Your task to perform on an android device: turn on airplane mode Image 0: 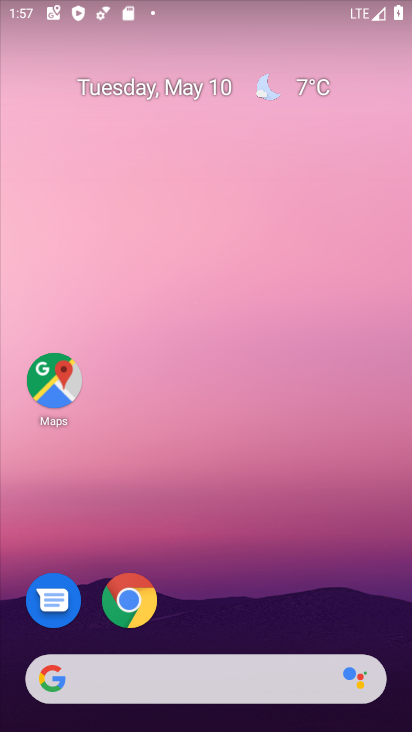
Step 0: drag from (181, 673) to (243, 216)
Your task to perform on an android device: turn on airplane mode Image 1: 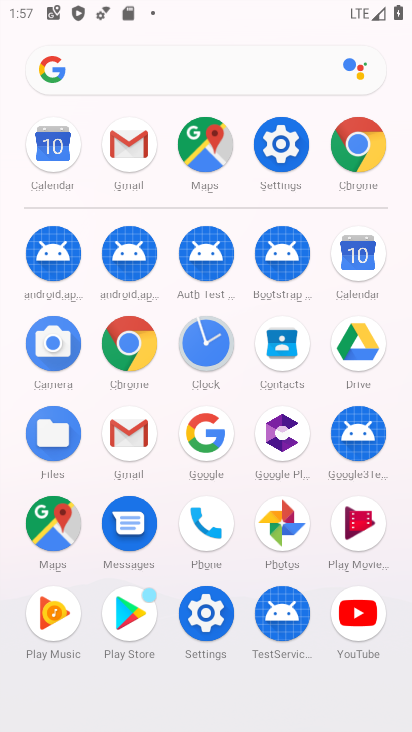
Step 1: click (283, 164)
Your task to perform on an android device: turn on airplane mode Image 2: 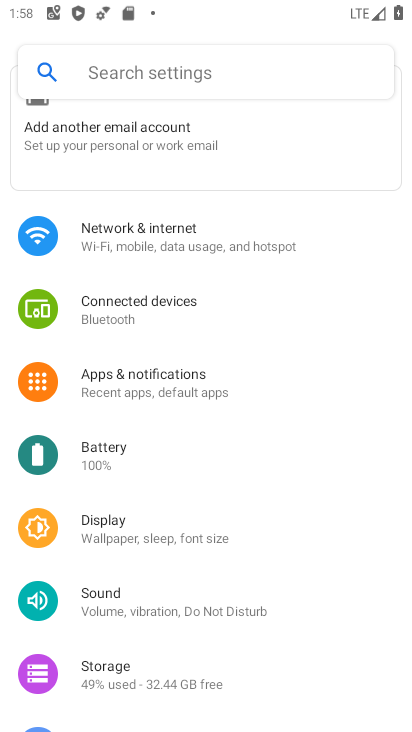
Step 2: click (189, 234)
Your task to perform on an android device: turn on airplane mode Image 3: 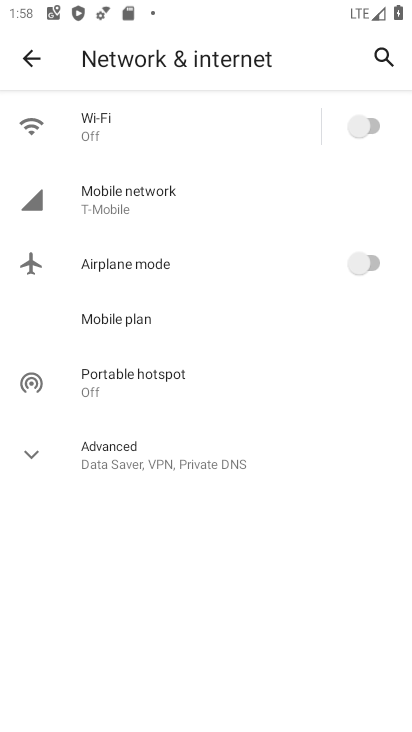
Step 3: click (377, 258)
Your task to perform on an android device: turn on airplane mode Image 4: 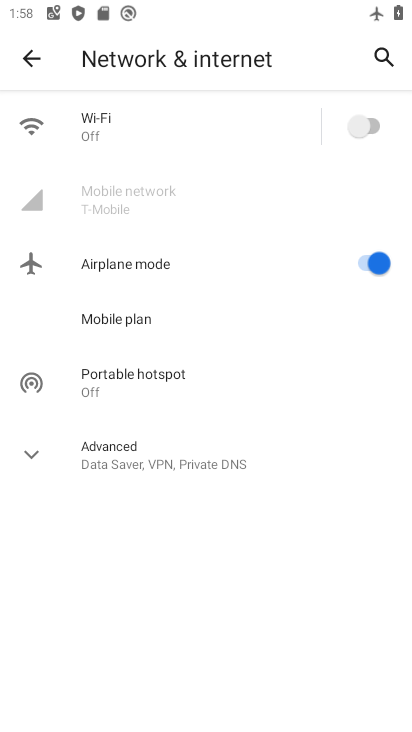
Step 4: task complete